Your task to perform on an android device: open app "Instagram" Image 0: 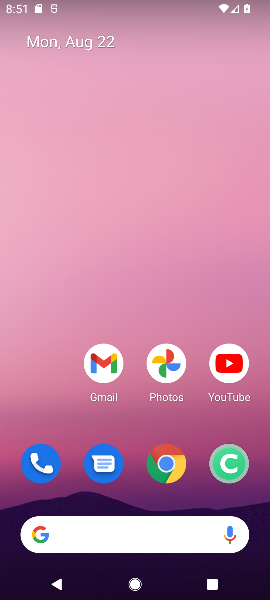
Step 0: drag from (119, 413) to (85, 64)
Your task to perform on an android device: open app "Instagram" Image 1: 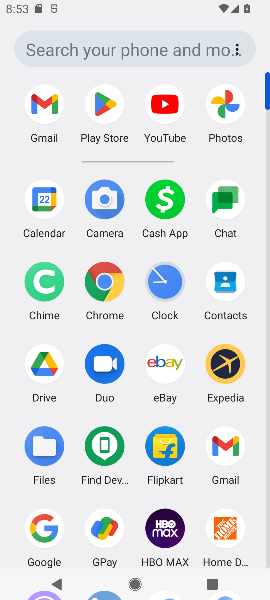
Step 1: click (99, 103)
Your task to perform on an android device: open app "Instagram" Image 2: 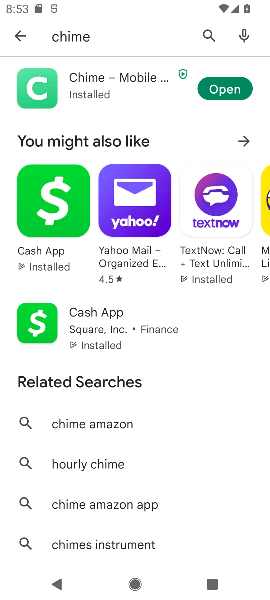
Step 2: click (19, 34)
Your task to perform on an android device: open app "Instagram" Image 3: 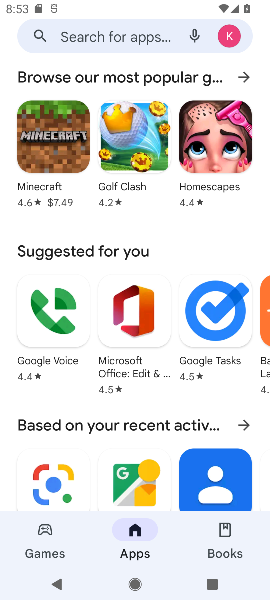
Step 3: click (140, 37)
Your task to perform on an android device: open app "Instagram" Image 4: 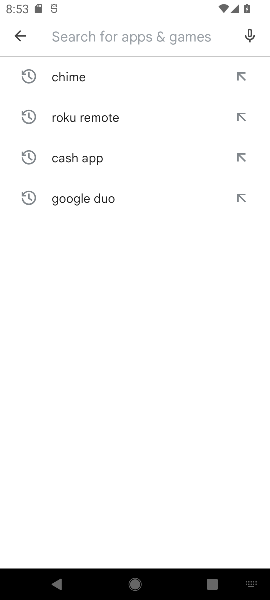
Step 4: type "Instagram"
Your task to perform on an android device: open app "Instagram" Image 5: 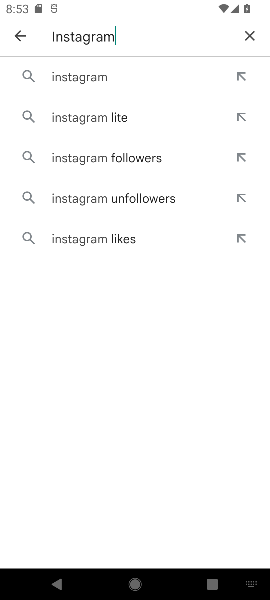
Step 5: click (62, 77)
Your task to perform on an android device: open app "Instagram" Image 6: 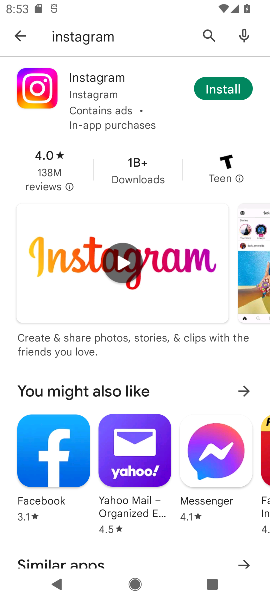
Step 6: click (229, 82)
Your task to perform on an android device: open app "Instagram" Image 7: 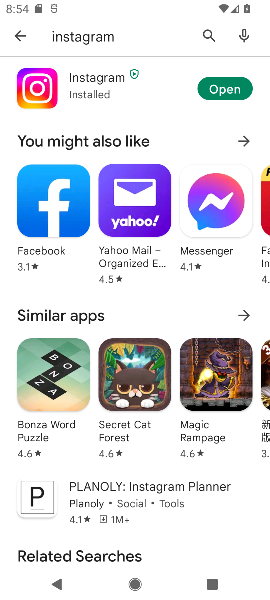
Step 7: click (224, 88)
Your task to perform on an android device: open app "Instagram" Image 8: 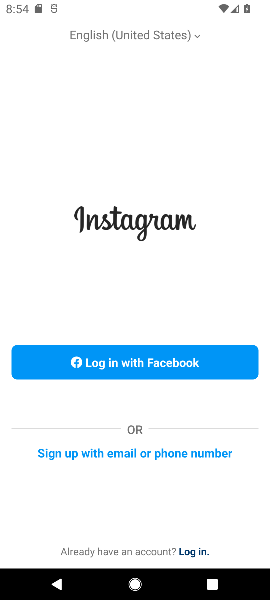
Step 8: task complete